Your task to perform on an android device: What's the news in Barbados? Image 0: 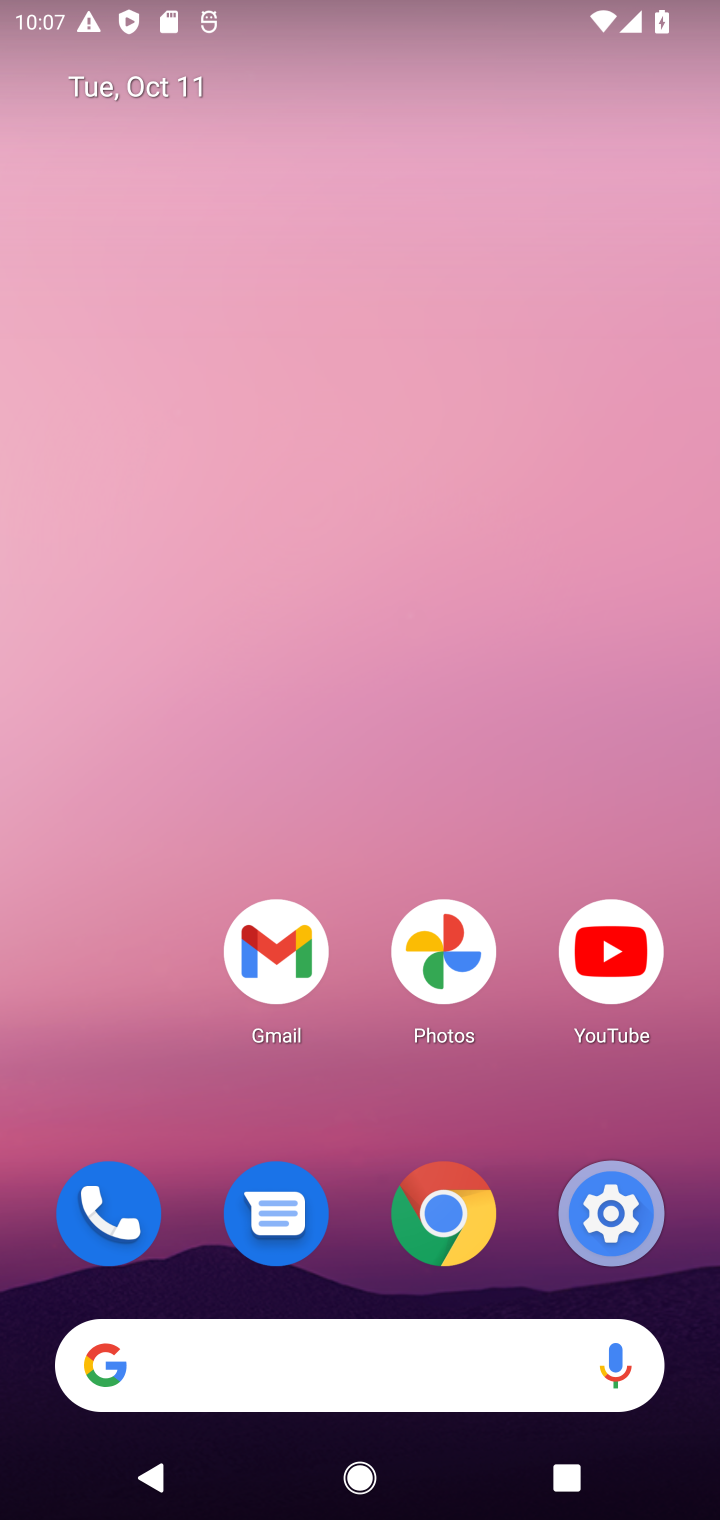
Step 0: click (449, 1207)
Your task to perform on an android device: What's the news in Barbados? Image 1: 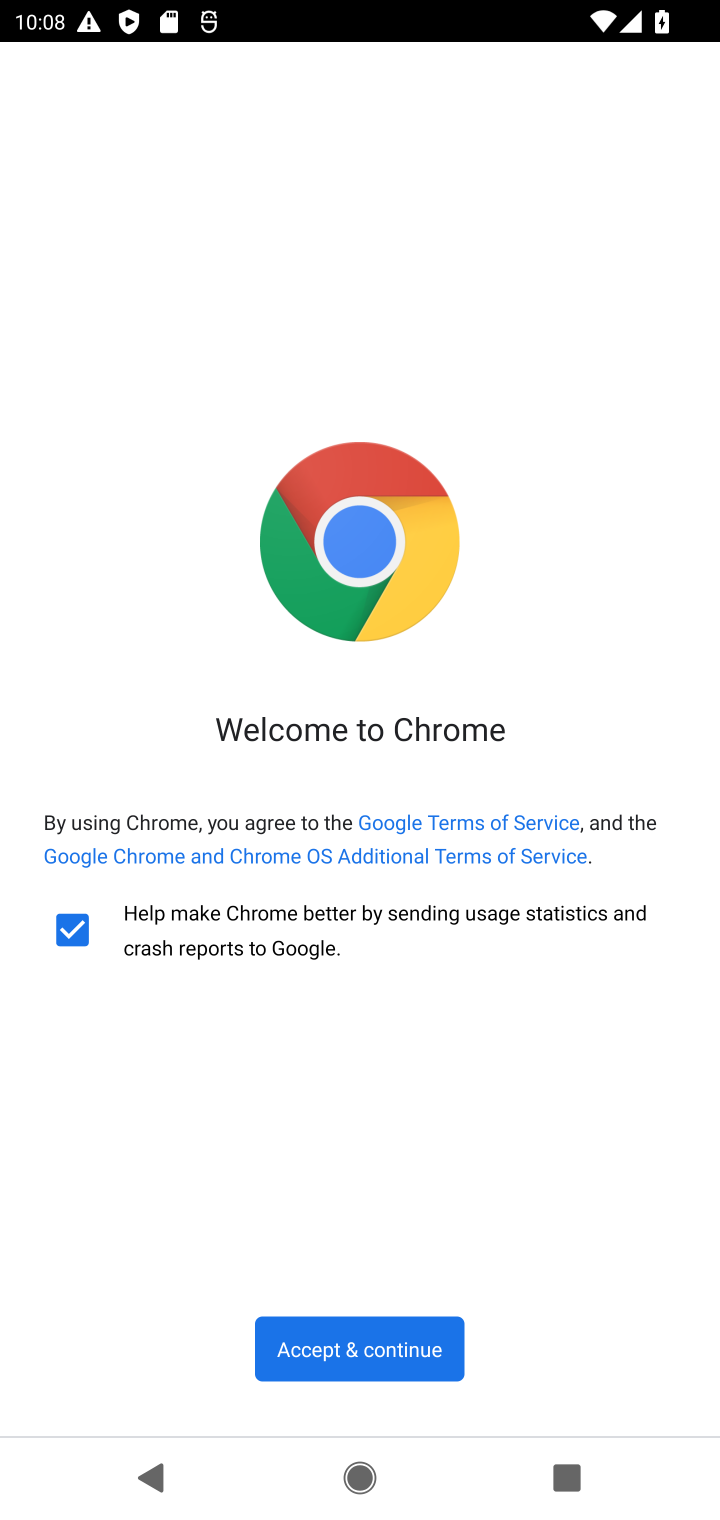
Step 1: click (426, 1329)
Your task to perform on an android device: What's the news in Barbados? Image 2: 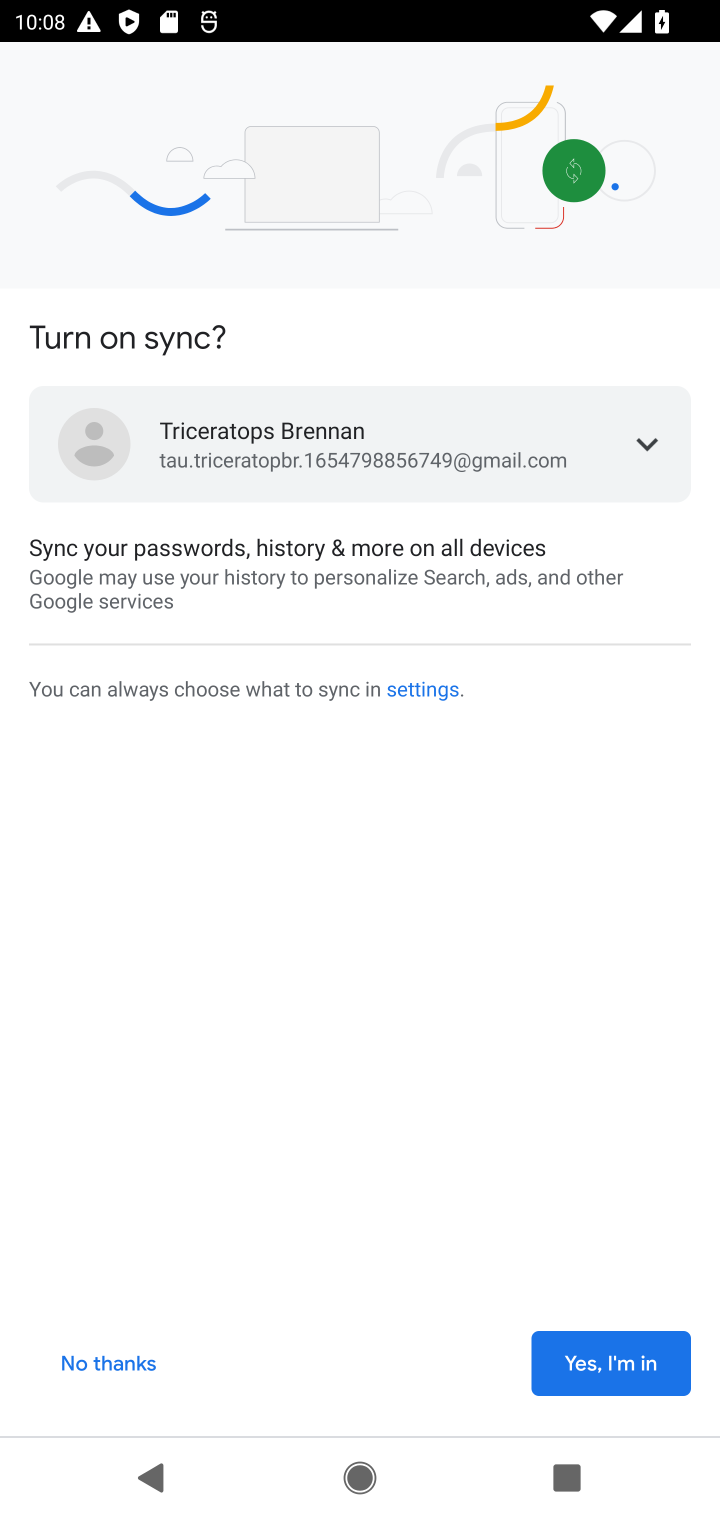
Step 2: click (573, 1338)
Your task to perform on an android device: What's the news in Barbados? Image 3: 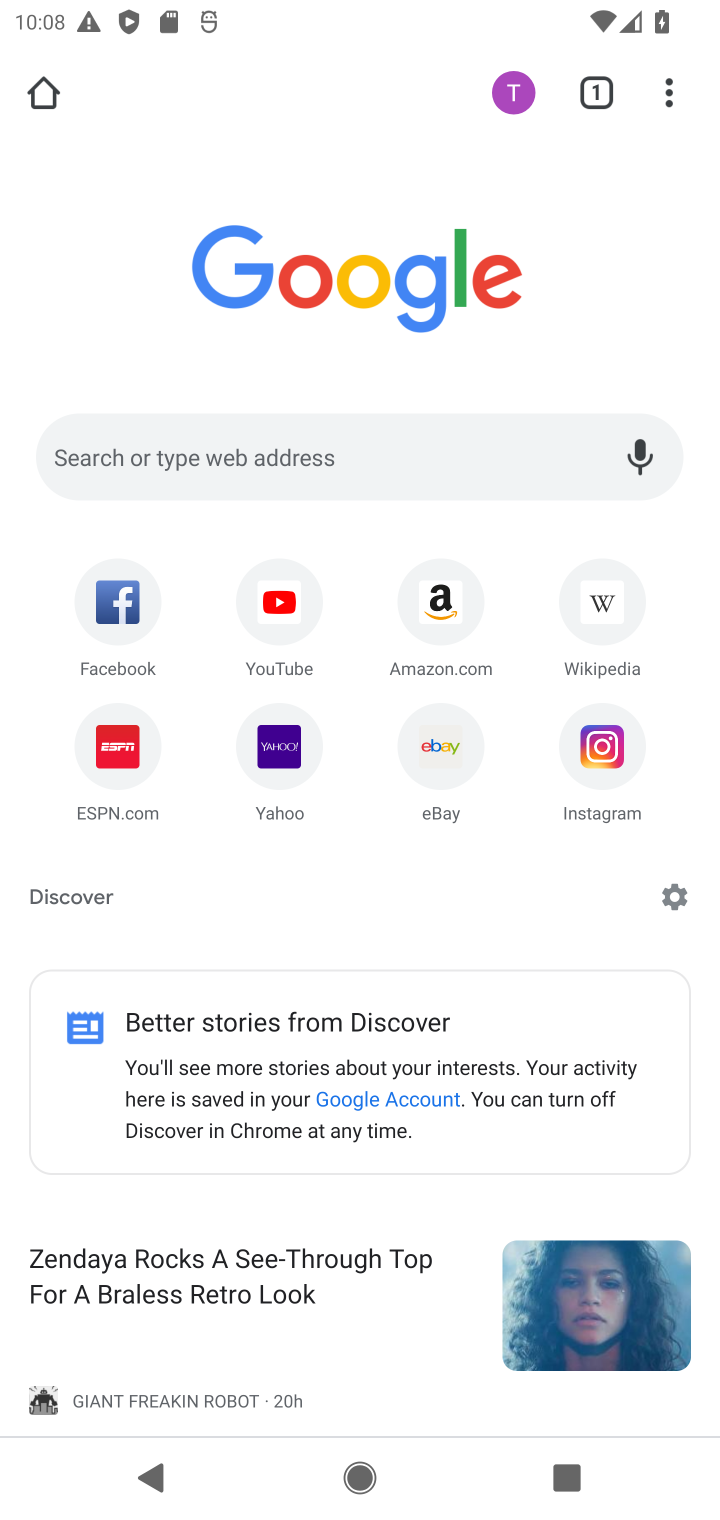
Step 3: click (458, 442)
Your task to perform on an android device: What's the news in Barbados? Image 4: 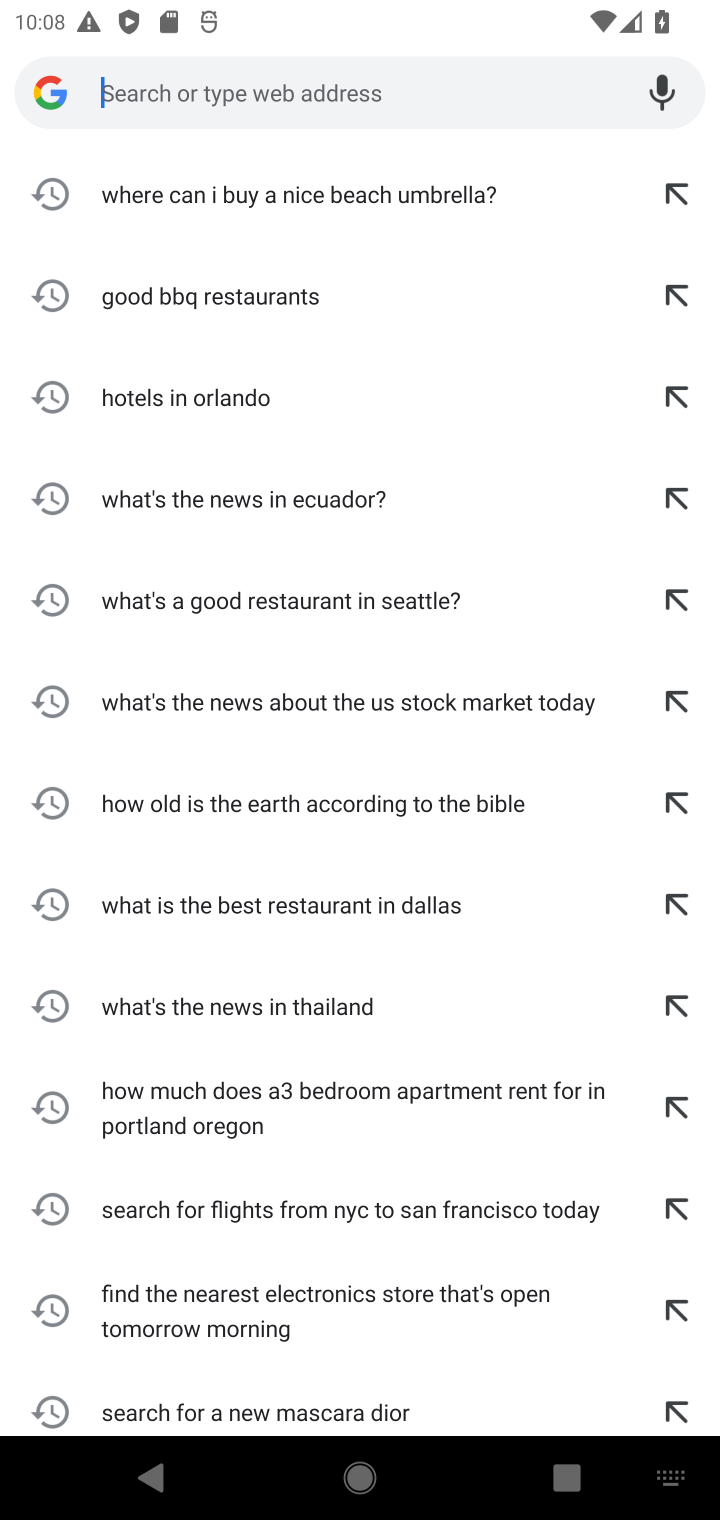
Step 4: type "news in Barbados"
Your task to perform on an android device: What's the news in Barbados? Image 5: 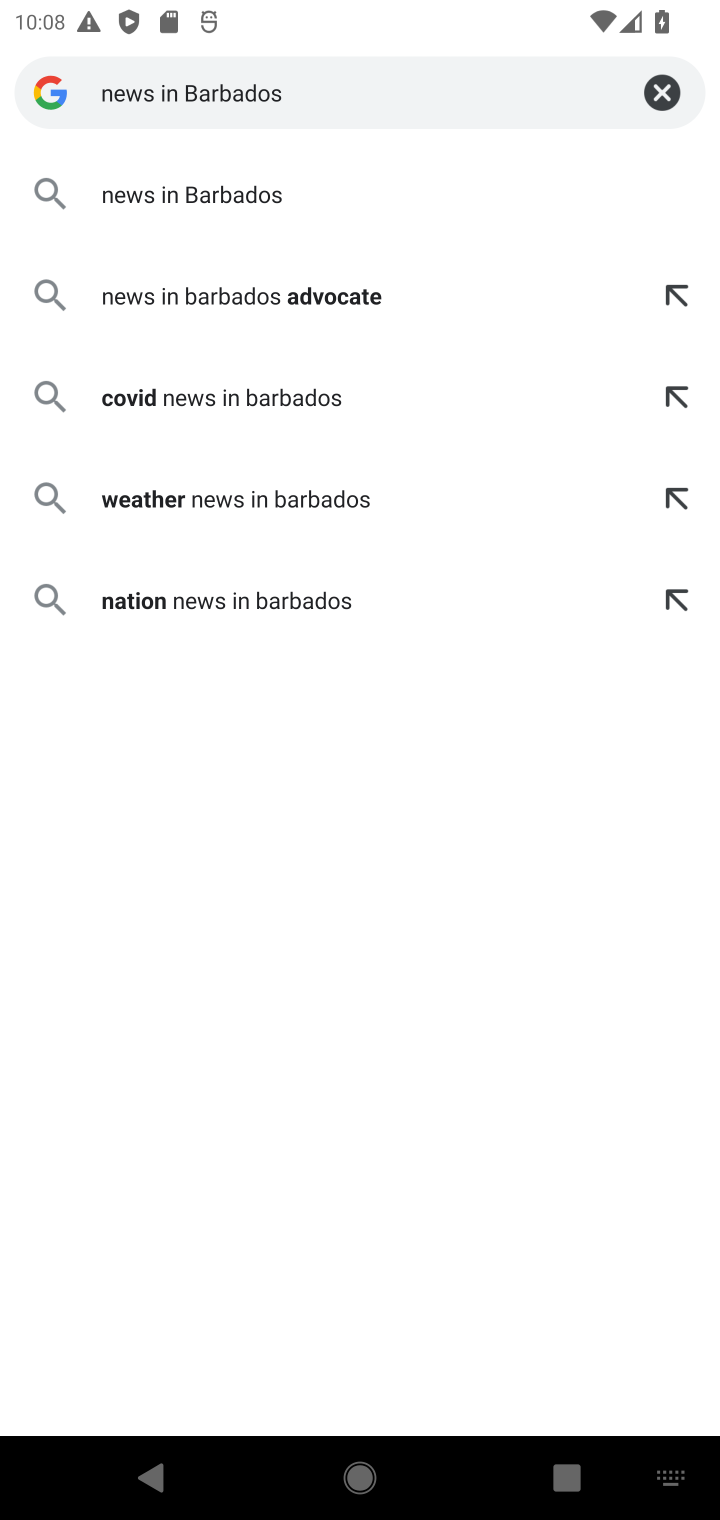
Step 5: click (334, 183)
Your task to perform on an android device: What's the news in Barbados? Image 6: 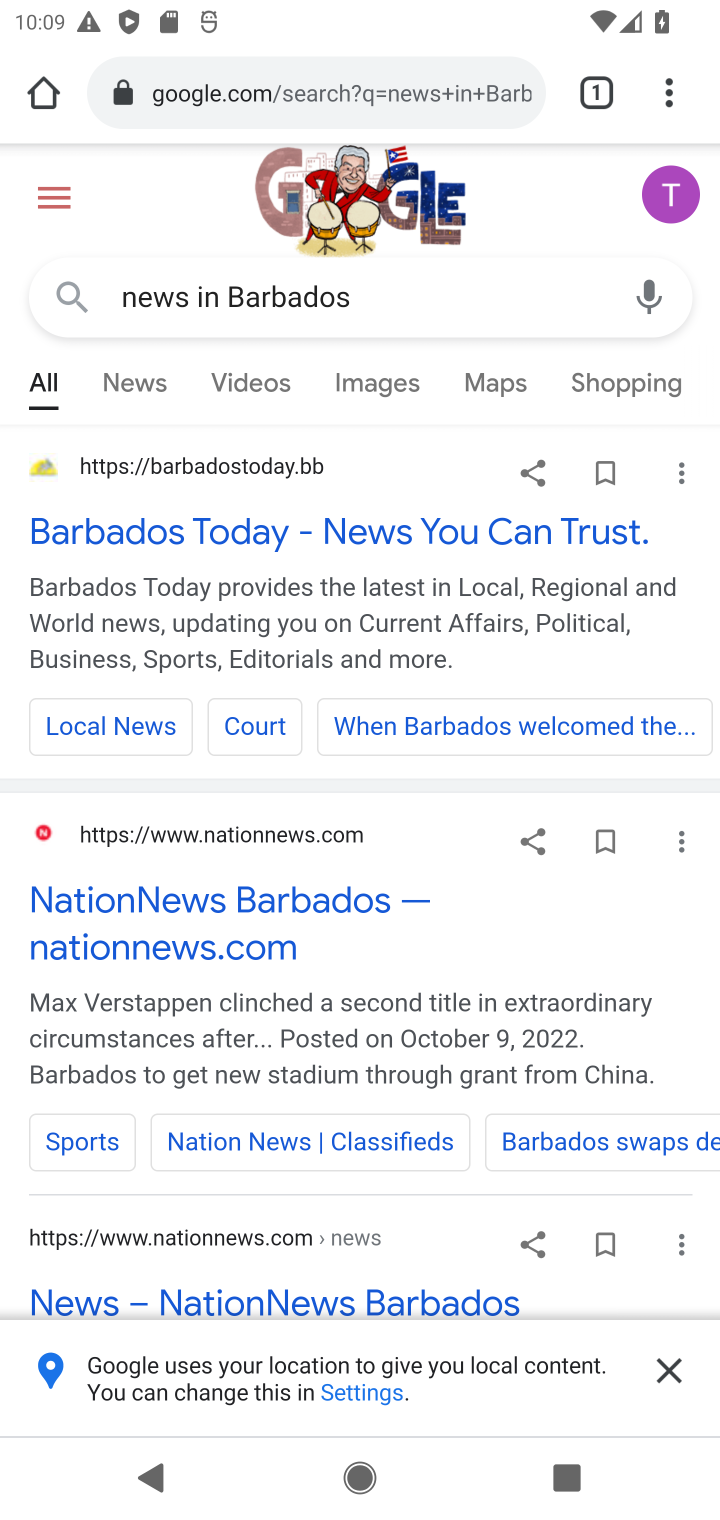
Step 6: click (99, 401)
Your task to perform on an android device: What's the news in Barbados? Image 7: 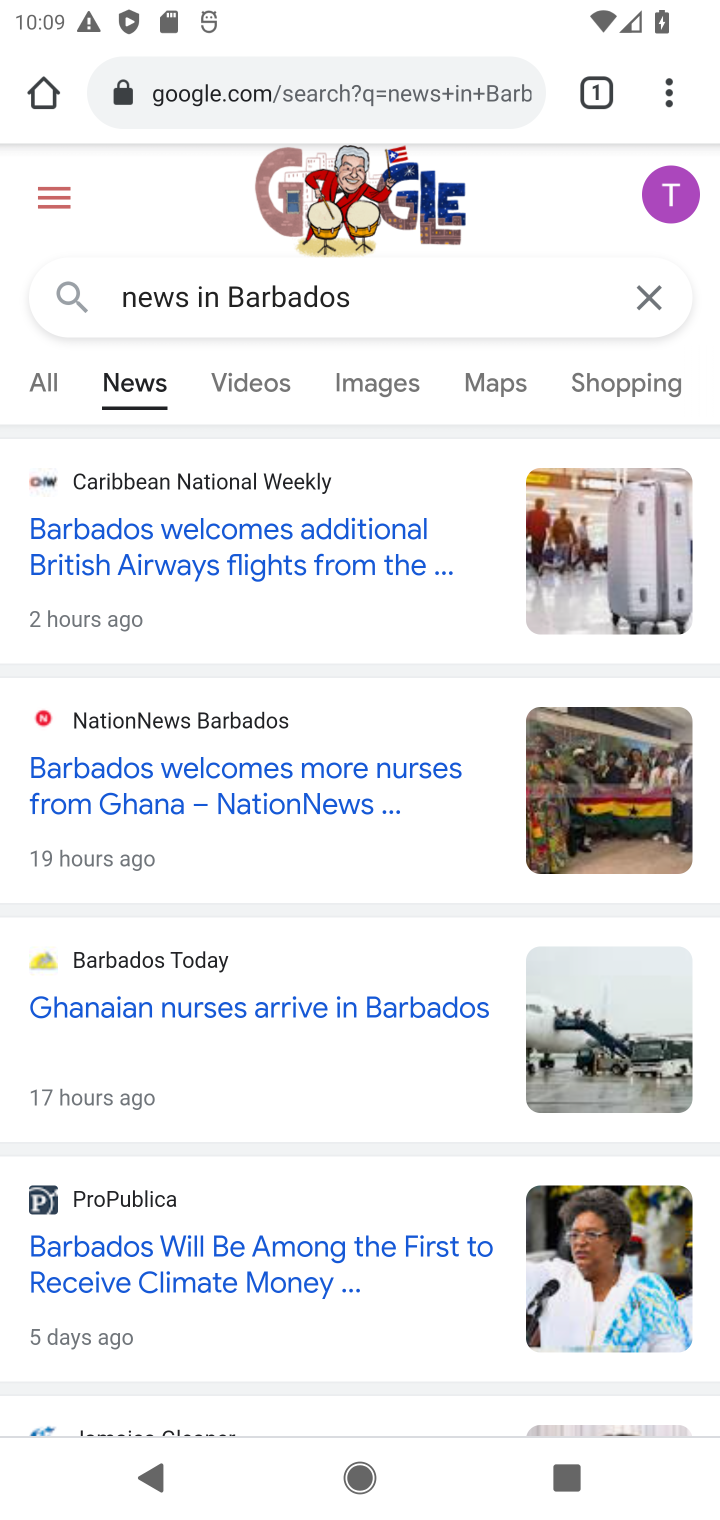
Step 7: task complete